Your task to perform on an android device: Open Google Chrome and open the bookmarks view Image 0: 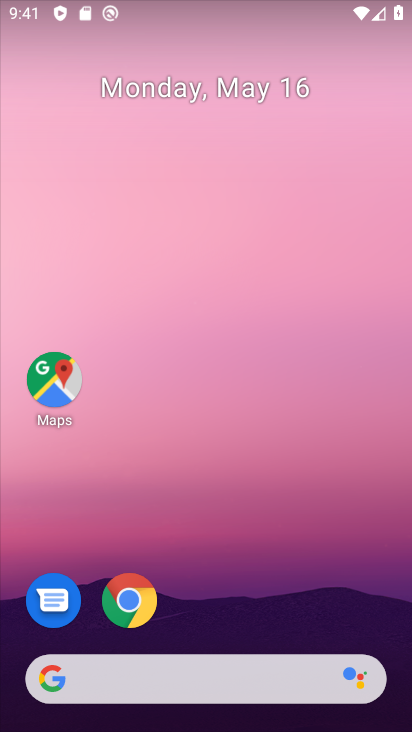
Step 0: click (148, 602)
Your task to perform on an android device: Open Google Chrome and open the bookmarks view Image 1: 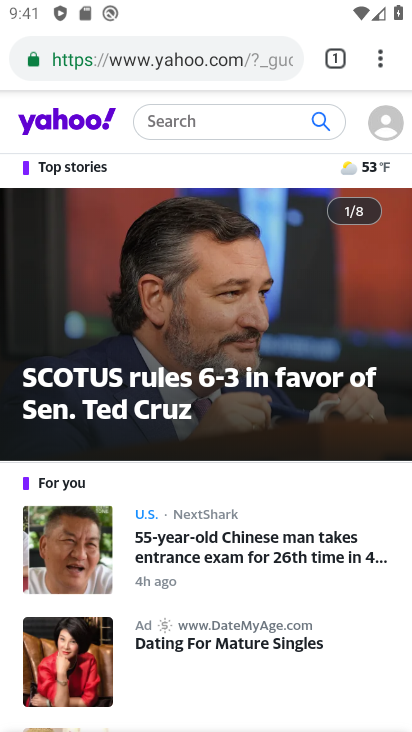
Step 1: task complete